Your task to perform on an android device: Open Chrome and go to settings Image 0: 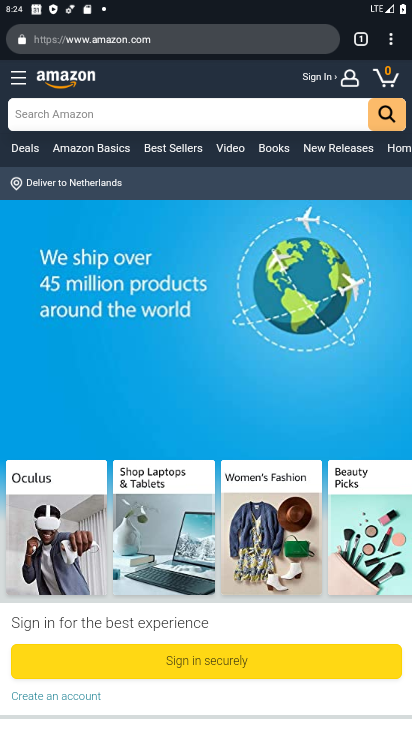
Step 0: drag from (249, 659) to (287, 505)
Your task to perform on an android device: Open Chrome and go to settings Image 1: 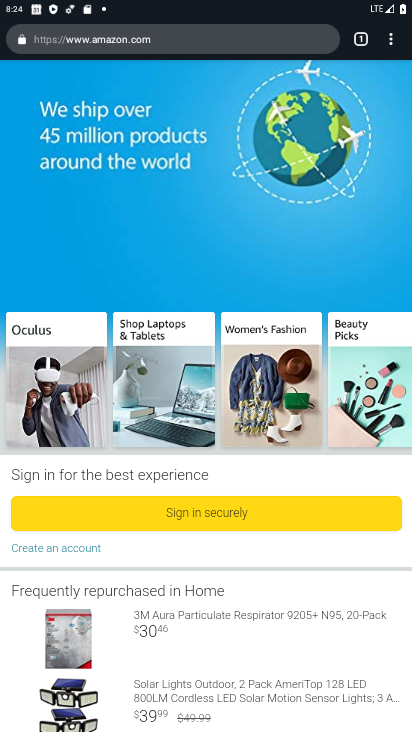
Step 1: press home button
Your task to perform on an android device: Open Chrome and go to settings Image 2: 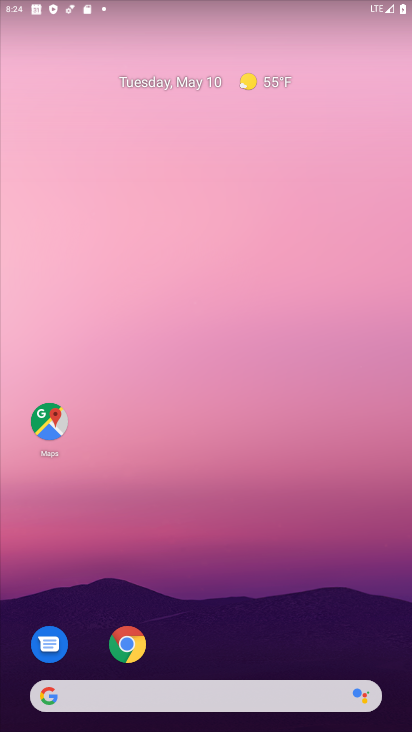
Step 2: drag from (247, 652) to (252, 216)
Your task to perform on an android device: Open Chrome and go to settings Image 3: 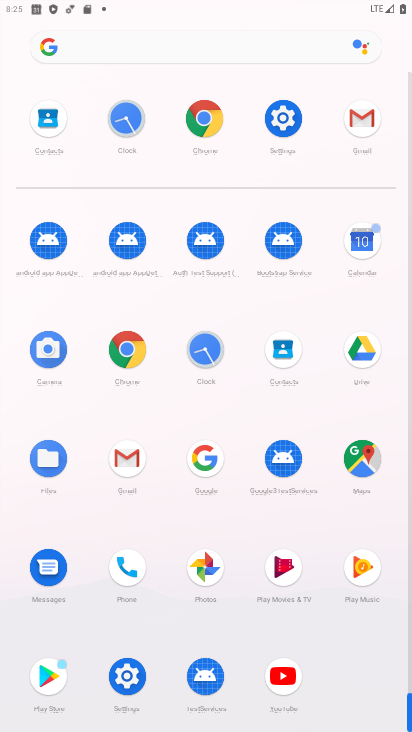
Step 3: click (208, 140)
Your task to perform on an android device: Open Chrome and go to settings Image 4: 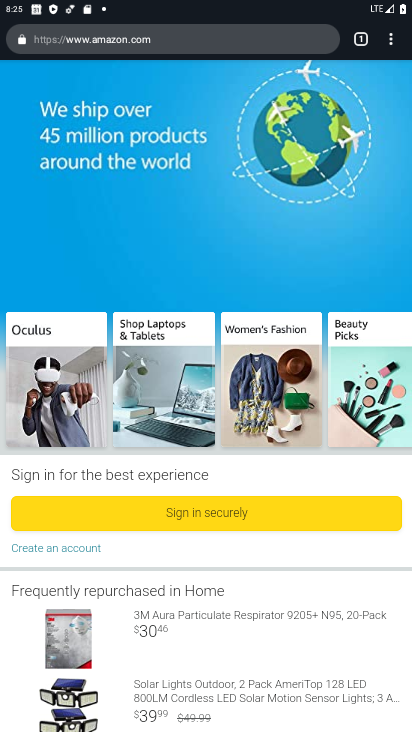
Step 4: drag from (221, 275) to (165, 591)
Your task to perform on an android device: Open Chrome and go to settings Image 5: 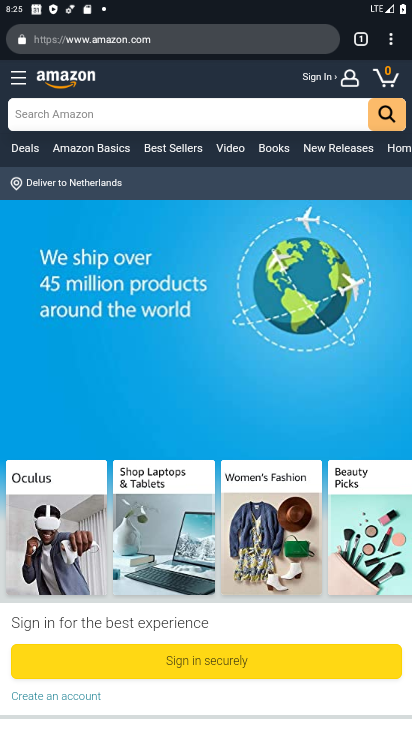
Step 5: click (390, 46)
Your task to perform on an android device: Open Chrome and go to settings Image 6: 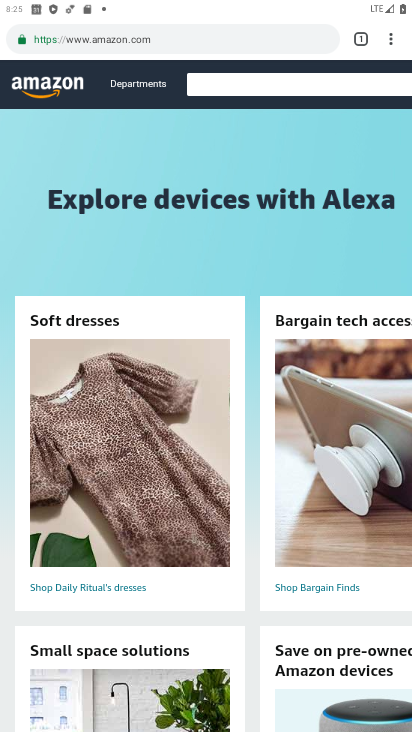
Step 6: click (390, 46)
Your task to perform on an android device: Open Chrome and go to settings Image 7: 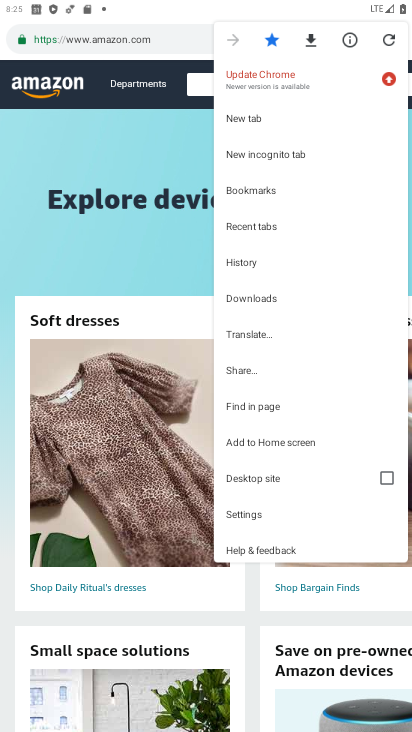
Step 7: drag from (333, 469) to (362, 184)
Your task to perform on an android device: Open Chrome and go to settings Image 8: 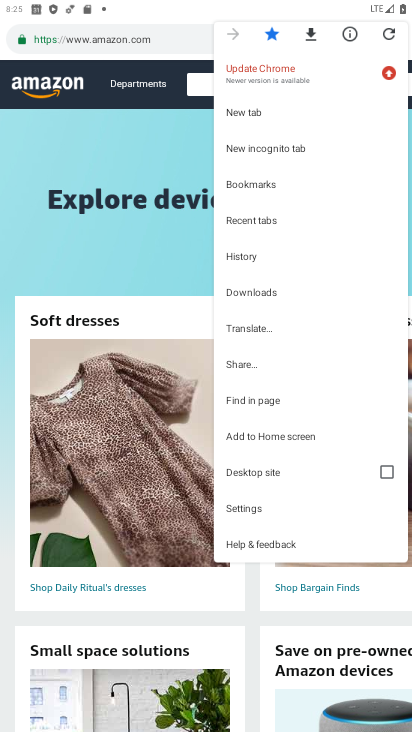
Step 8: click (284, 500)
Your task to perform on an android device: Open Chrome and go to settings Image 9: 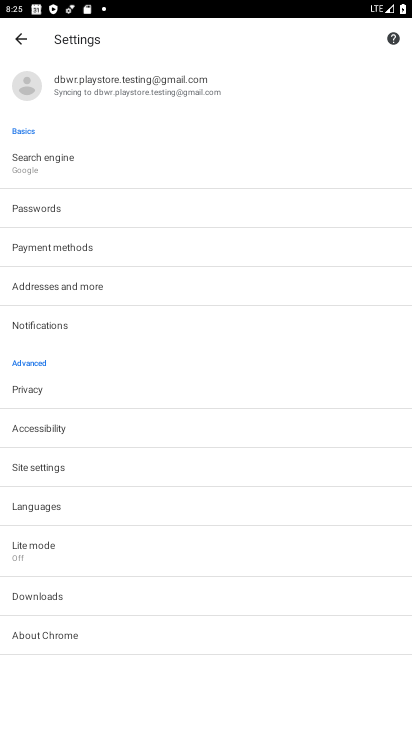
Step 9: task complete